Your task to perform on an android device: Open my contact list Image 0: 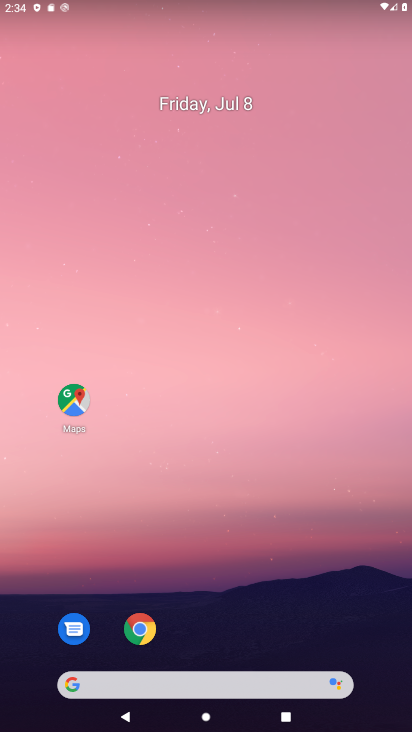
Step 0: drag from (33, 701) to (326, 6)
Your task to perform on an android device: Open my contact list Image 1: 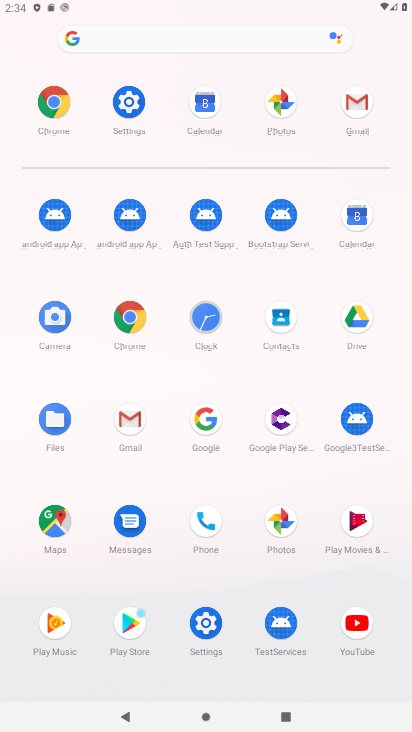
Step 1: click (182, 532)
Your task to perform on an android device: Open my contact list Image 2: 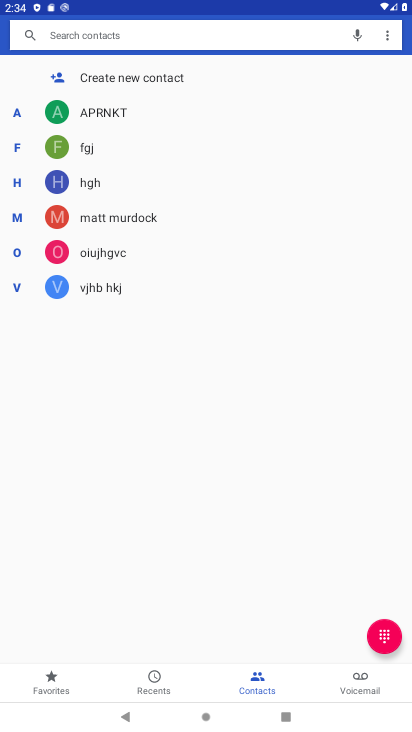
Step 2: click (257, 689)
Your task to perform on an android device: Open my contact list Image 3: 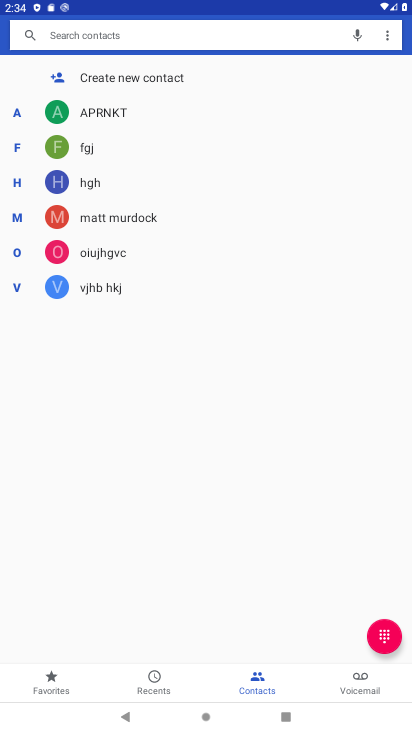
Step 3: task complete